Your task to perform on an android device: turn off airplane mode Image 0: 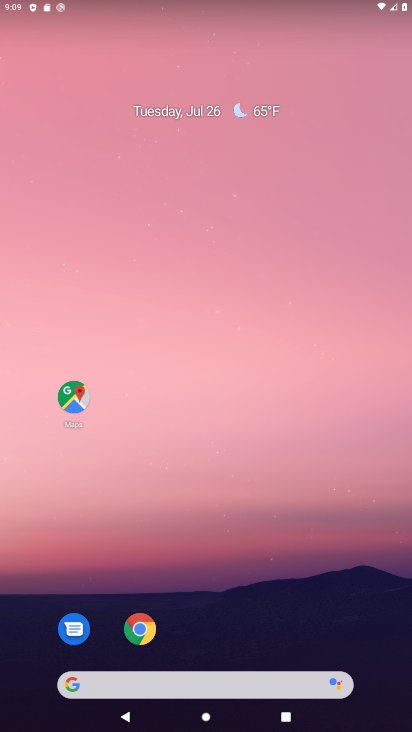
Step 0: drag from (224, 578) to (155, 0)
Your task to perform on an android device: turn off airplane mode Image 1: 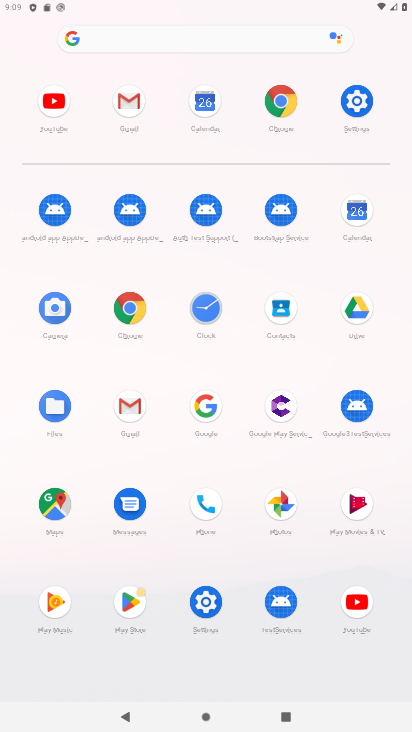
Step 1: click (351, 91)
Your task to perform on an android device: turn off airplane mode Image 2: 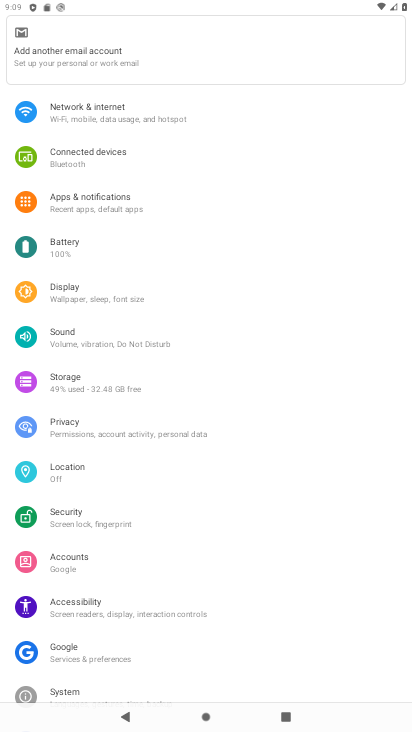
Step 2: click (115, 122)
Your task to perform on an android device: turn off airplane mode Image 3: 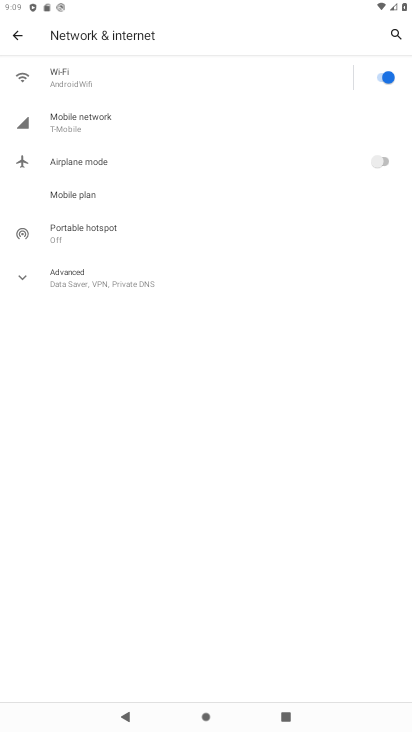
Step 3: task complete